Your task to perform on an android device: Search for "razer blade" on amazon.com, select the first entry, and add it to the cart. Image 0: 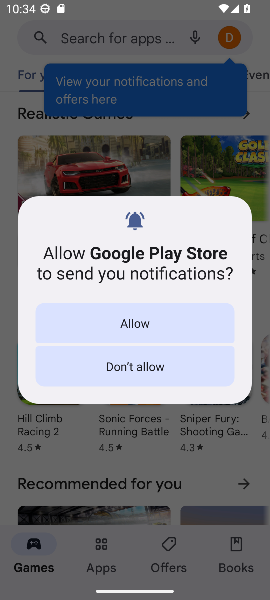
Step 0: press home button
Your task to perform on an android device: Search for "razer blade" on amazon.com, select the first entry, and add it to the cart. Image 1: 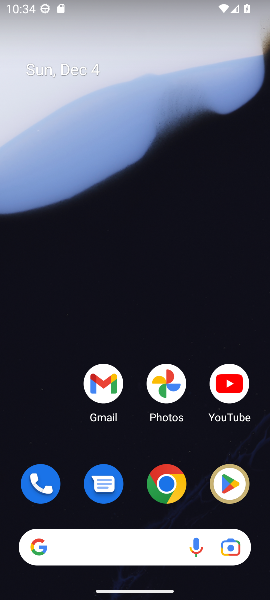
Step 1: click (169, 487)
Your task to perform on an android device: Search for "razer blade" on amazon.com, select the first entry, and add it to the cart. Image 2: 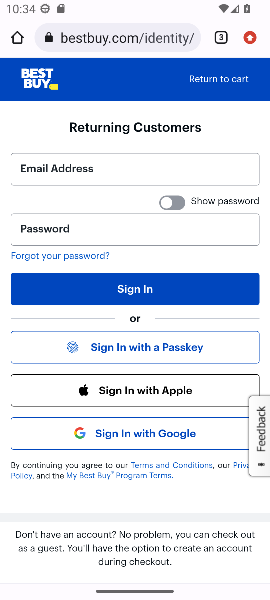
Step 2: click (116, 42)
Your task to perform on an android device: Search for "razer blade" on amazon.com, select the first entry, and add it to the cart. Image 3: 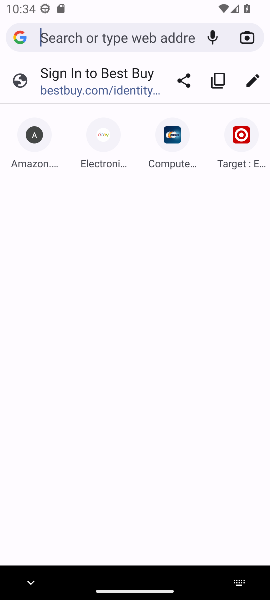
Step 3: click (41, 163)
Your task to perform on an android device: Search for "razer blade" on amazon.com, select the first entry, and add it to the cart. Image 4: 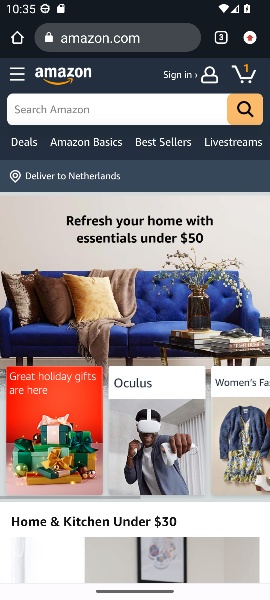
Step 4: click (86, 116)
Your task to perform on an android device: Search for "razer blade" on amazon.com, select the first entry, and add it to the cart. Image 5: 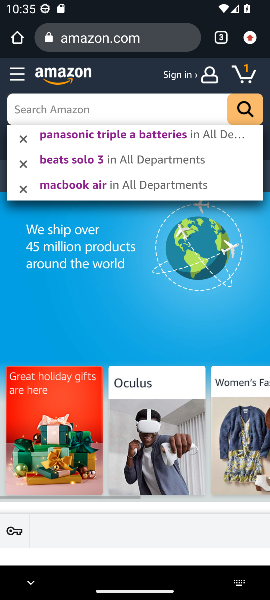
Step 5: type "razer blade"
Your task to perform on an android device: Search for "razer blade" on amazon.com, select the first entry, and add it to the cart. Image 6: 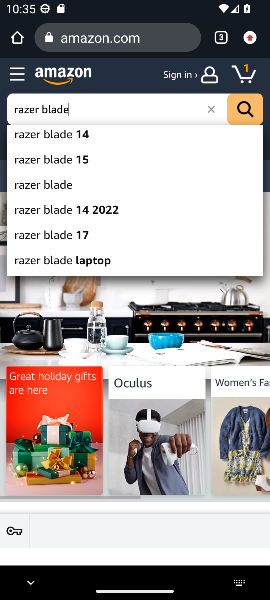
Step 6: click (59, 188)
Your task to perform on an android device: Search for "razer blade" on amazon.com, select the first entry, and add it to the cart. Image 7: 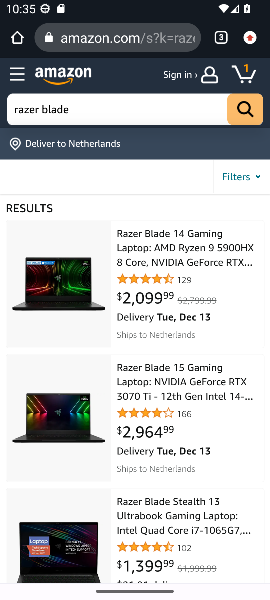
Step 7: click (162, 263)
Your task to perform on an android device: Search for "razer blade" on amazon.com, select the first entry, and add it to the cart. Image 8: 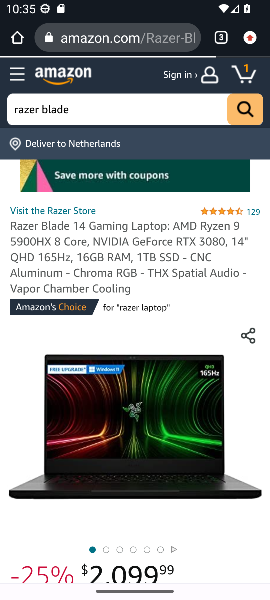
Step 8: drag from (165, 433) to (177, 213)
Your task to perform on an android device: Search for "razer blade" on amazon.com, select the first entry, and add it to the cart. Image 9: 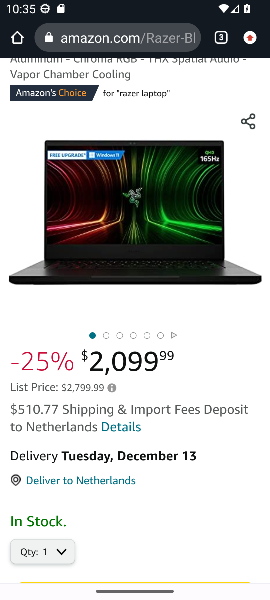
Step 9: drag from (165, 404) to (172, 147)
Your task to perform on an android device: Search for "razer blade" on amazon.com, select the first entry, and add it to the cart. Image 10: 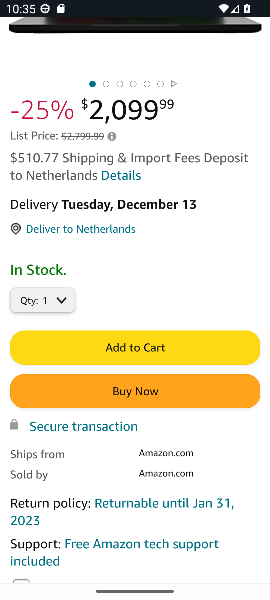
Step 10: click (132, 342)
Your task to perform on an android device: Search for "razer blade" on amazon.com, select the first entry, and add it to the cart. Image 11: 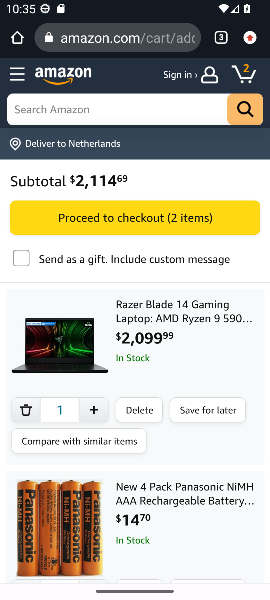
Step 11: task complete